Your task to perform on an android device: Open sound settings Image 0: 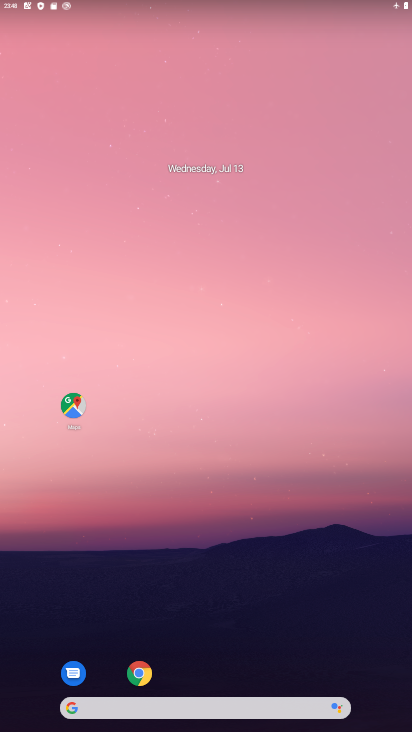
Step 0: drag from (249, 594) to (229, 6)
Your task to perform on an android device: Open sound settings Image 1: 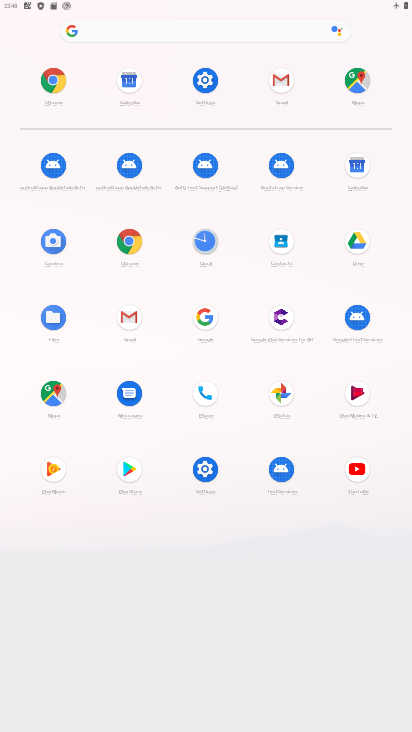
Step 1: click (213, 94)
Your task to perform on an android device: Open sound settings Image 2: 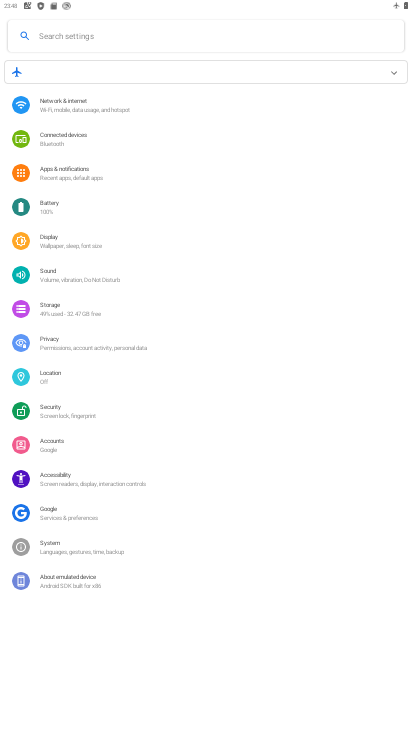
Step 2: click (71, 275)
Your task to perform on an android device: Open sound settings Image 3: 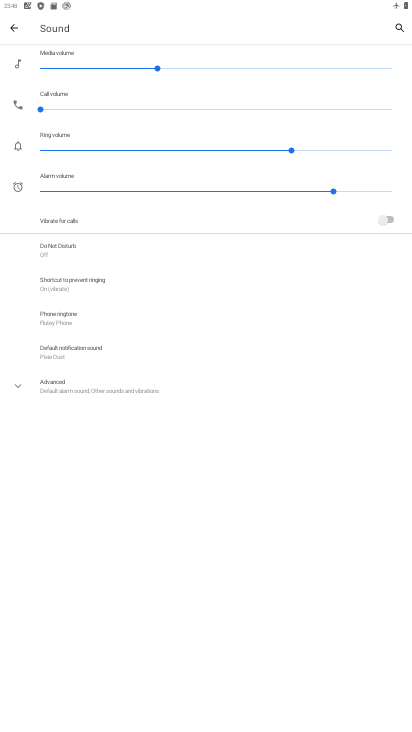
Step 3: task complete